Your task to perform on an android device: toggle show notifications on the lock screen Image 0: 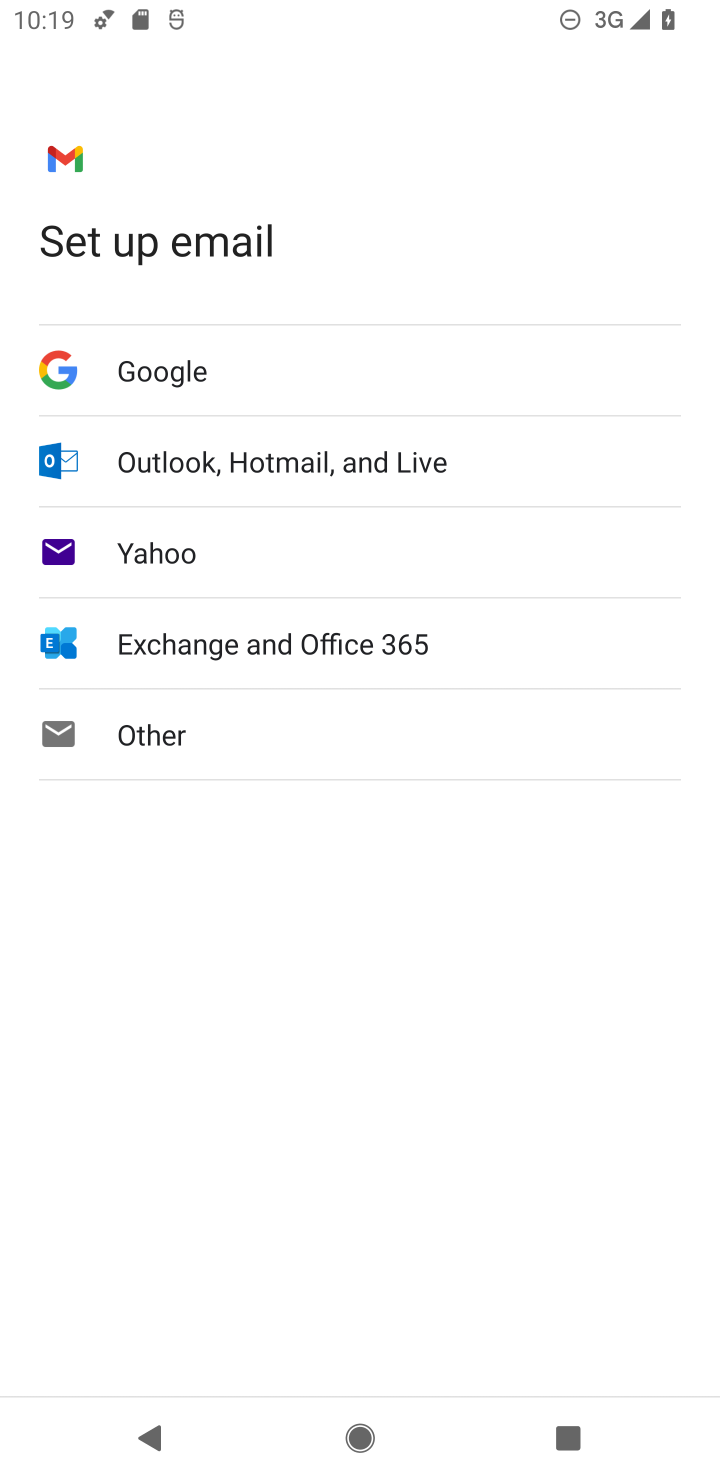
Step 0: press home button
Your task to perform on an android device: toggle show notifications on the lock screen Image 1: 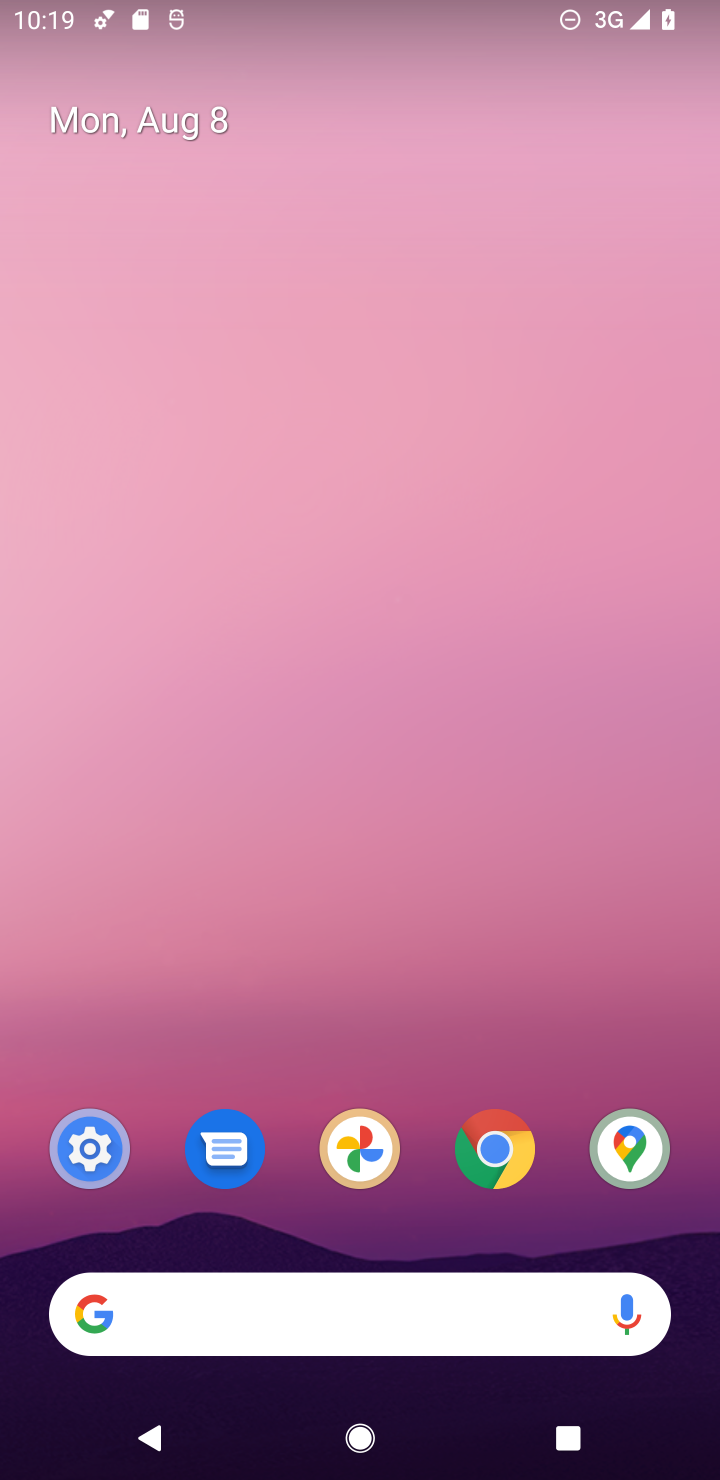
Step 1: drag from (288, 1190) to (215, 572)
Your task to perform on an android device: toggle show notifications on the lock screen Image 2: 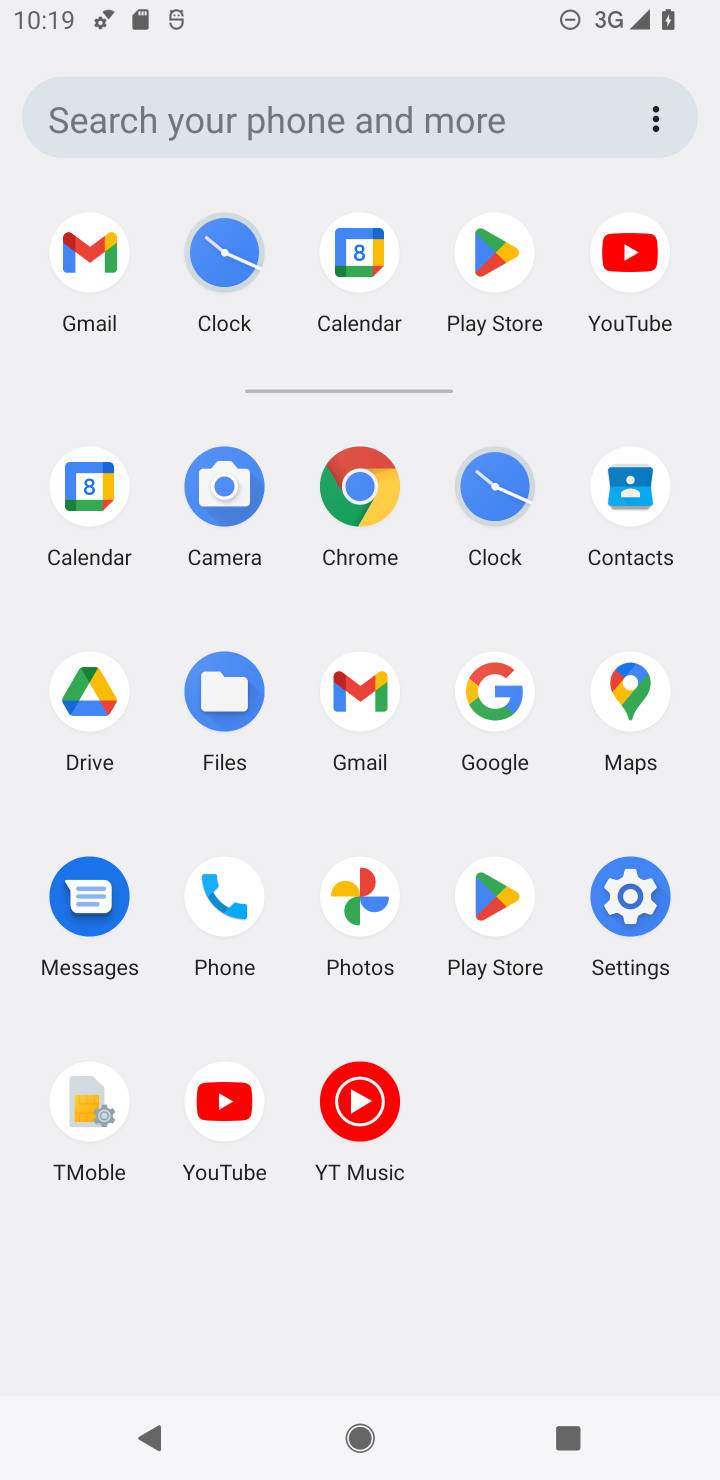
Step 2: click (632, 900)
Your task to perform on an android device: toggle show notifications on the lock screen Image 3: 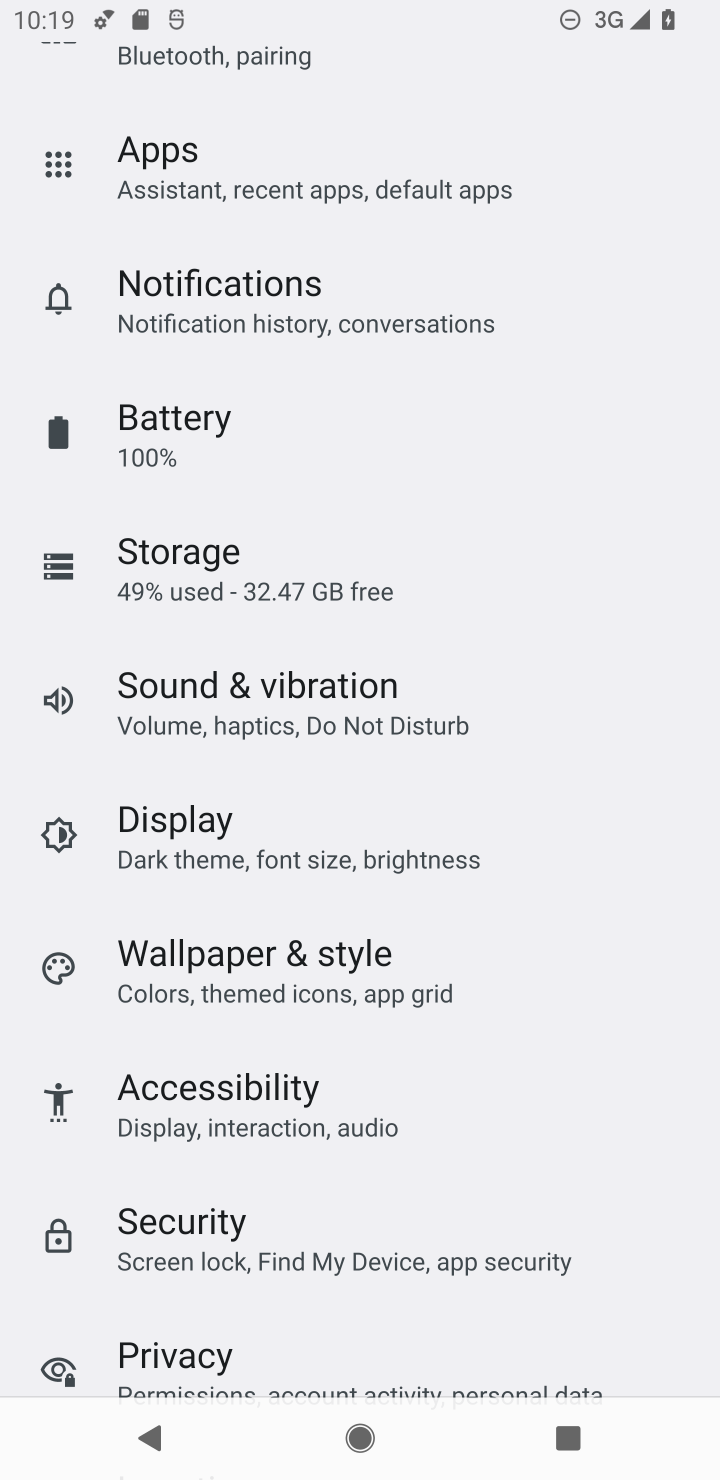
Step 3: click (218, 1362)
Your task to perform on an android device: toggle show notifications on the lock screen Image 4: 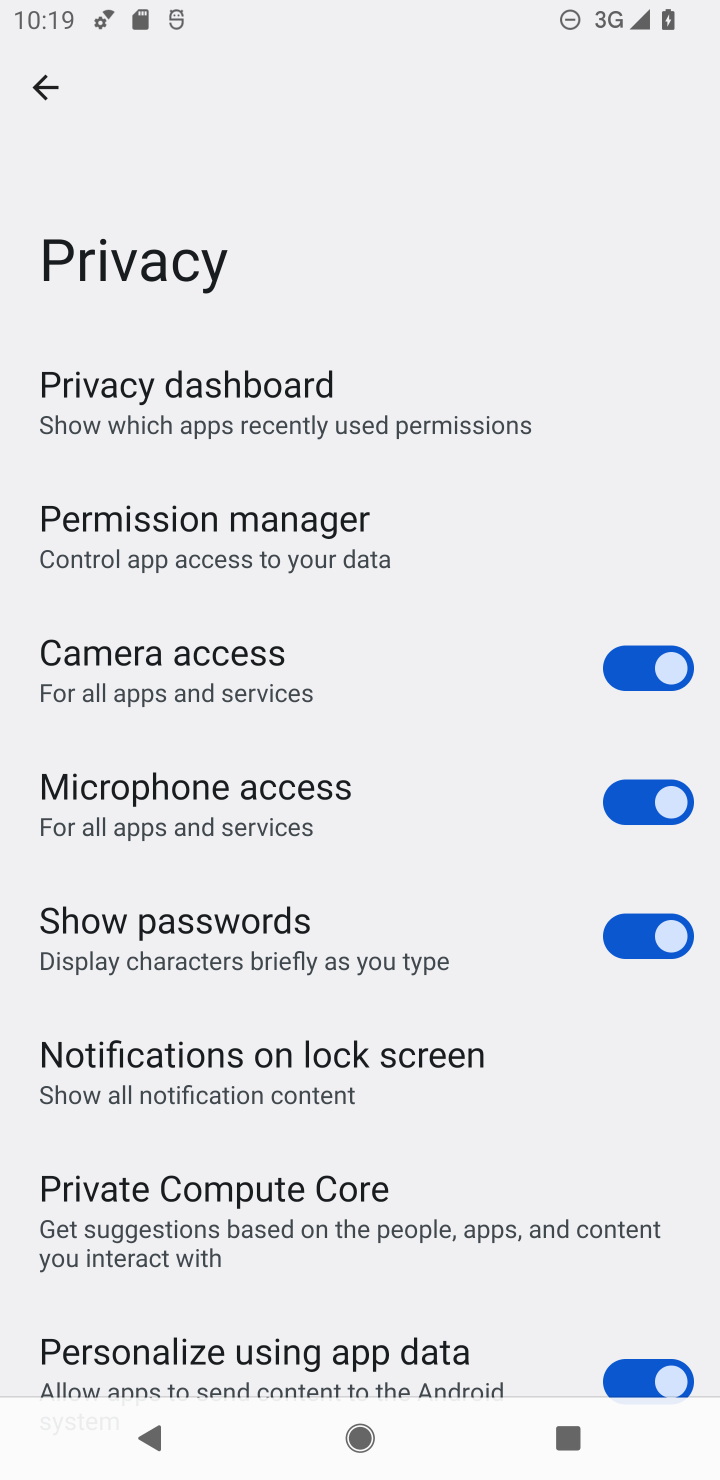
Step 4: click (154, 1095)
Your task to perform on an android device: toggle show notifications on the lock screen Image 5: 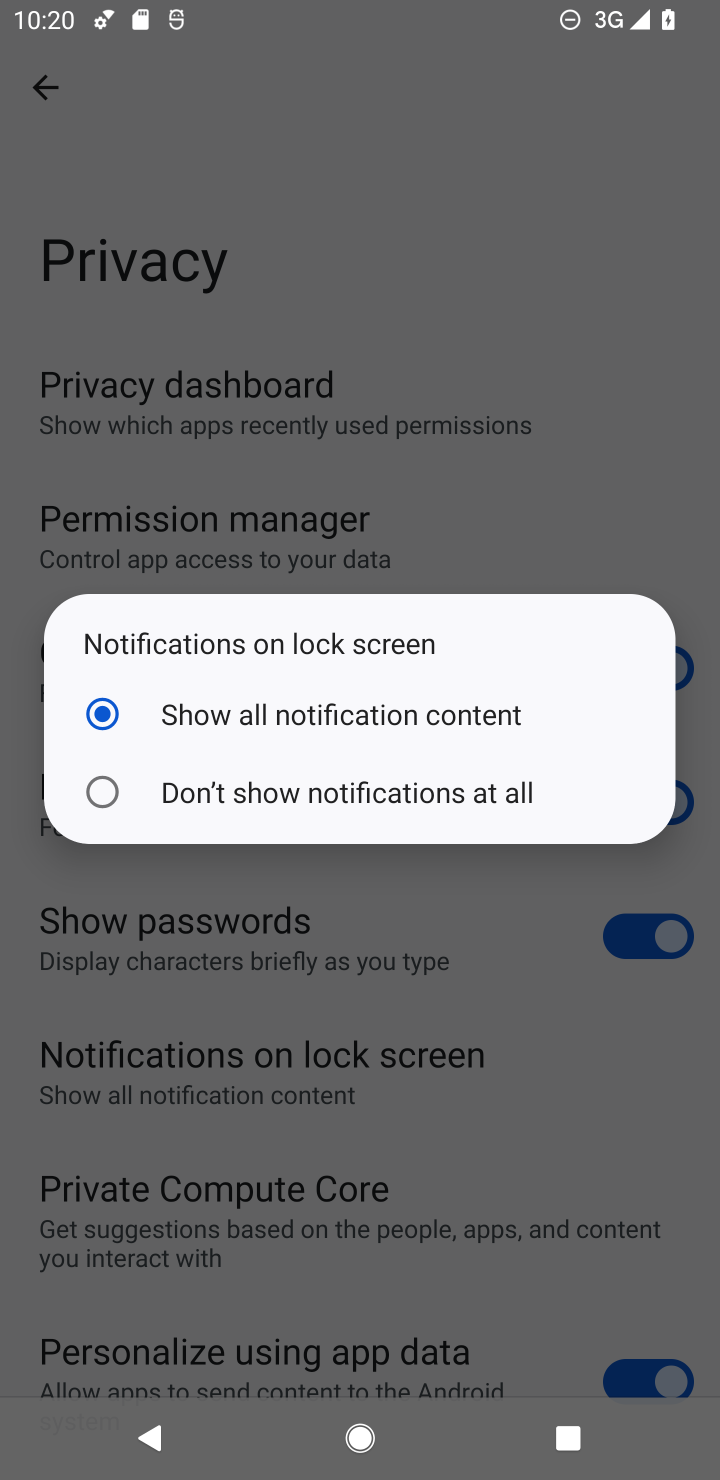
Step 5: click (306, 795)
Your task to perform on an android device: toggle show notifications on the lock screen Image 6: 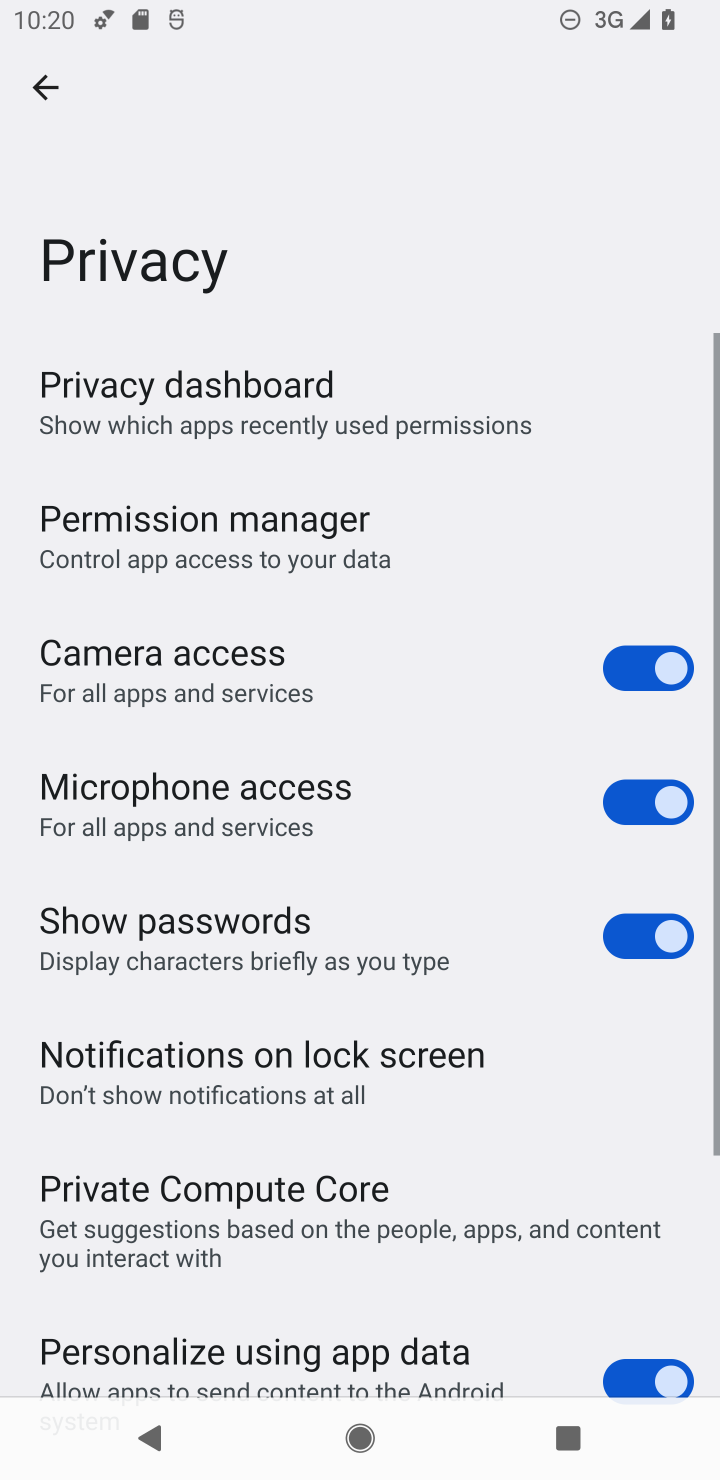
Step 6: task complete